Your task to perform on an android device: toggle javascript in the chrome app Image 0: 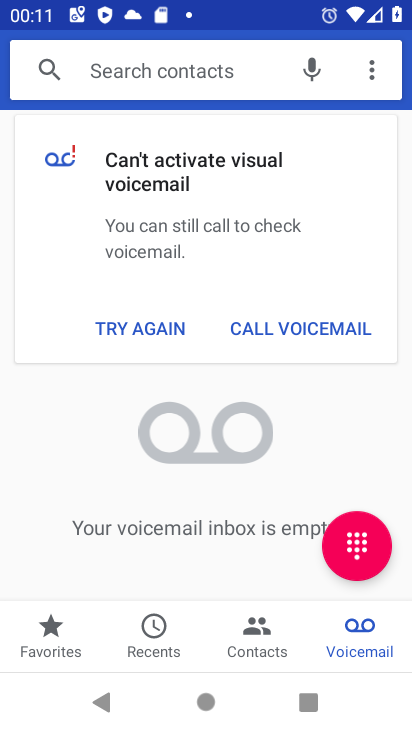
Step 0: press home button
Your task to perform on an android device: toggle javascript in the chrome app Image 1: 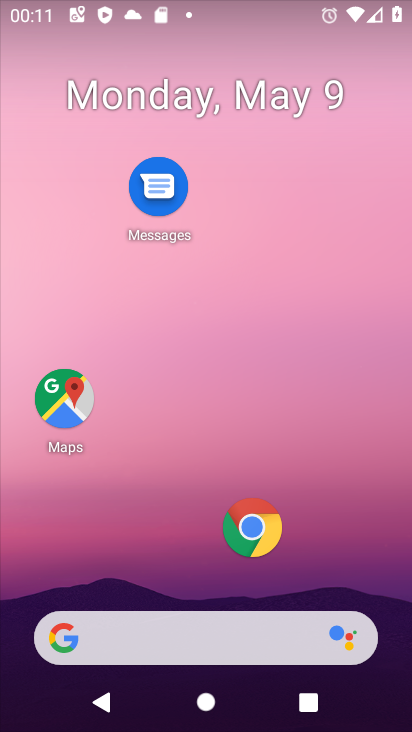
Step 1: click (250, 526)
Your task to perform on an android device: toggle javascript in the chrome app Image 2: 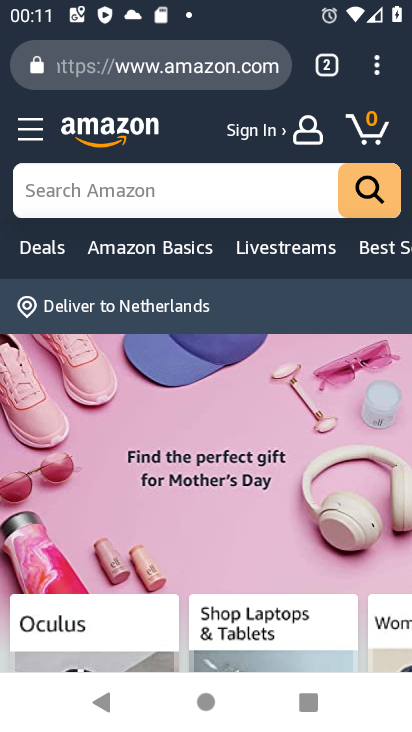
Step 2: click (369, 66)
Your task to perform on an android device: toggle javascript in the chrome app Image 3: 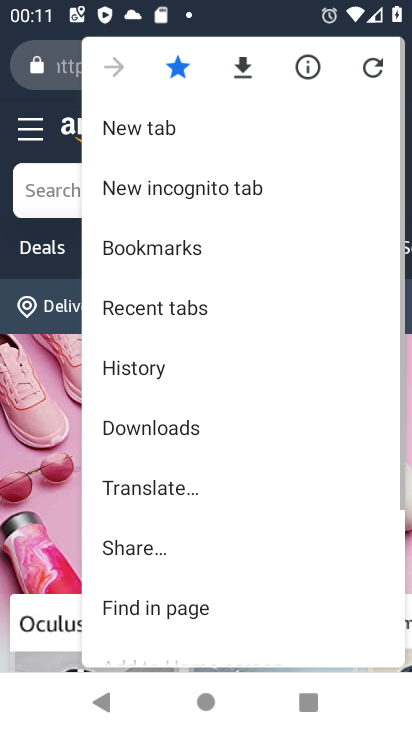
Step 3: drag from (254, 497) to (292, 5)
Your task to perform on an android device: toggle javascript in the chrome app Image 4: 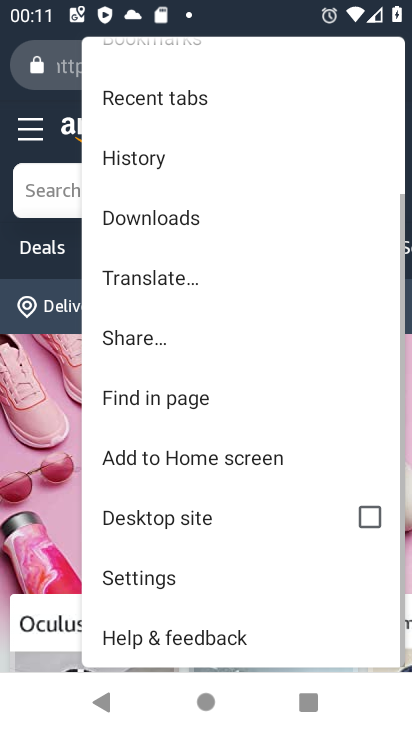
Step 4: click (171, 577)
Your task to perform on an android device: toggle javascript in the chrome app Image 5: 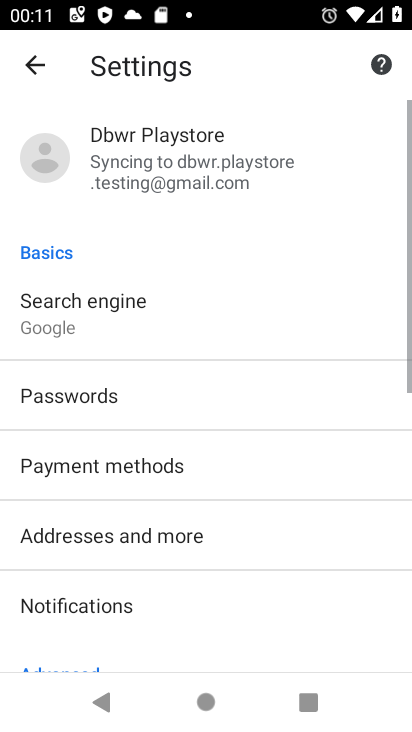
Step 5: drag from (251, 546) to (253, 87)
Your task to perform on an android device: toggle javascript in the chrome app Image 6: 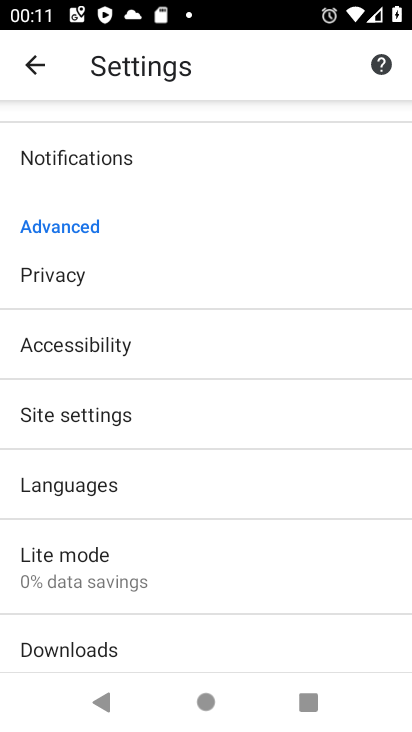
Step 6: drag from (166, 552) to (166, 359)
Your task to perform on an android device: toggle javascript in the chrome app Image 7: 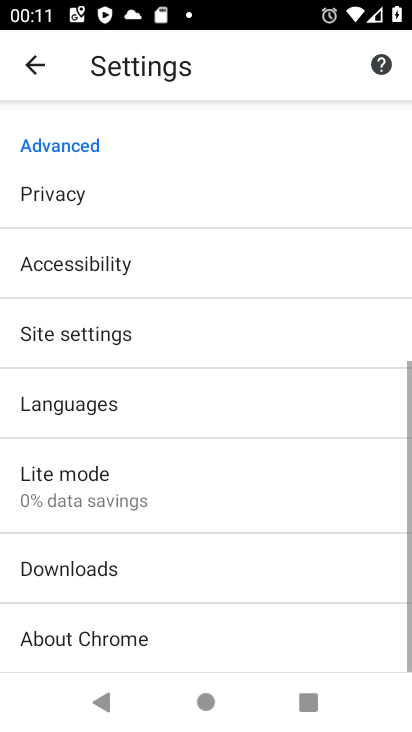
Step 7: click (12, 357)
Your task to perform on an android device: toggle javascript in the chrome app Image 8: 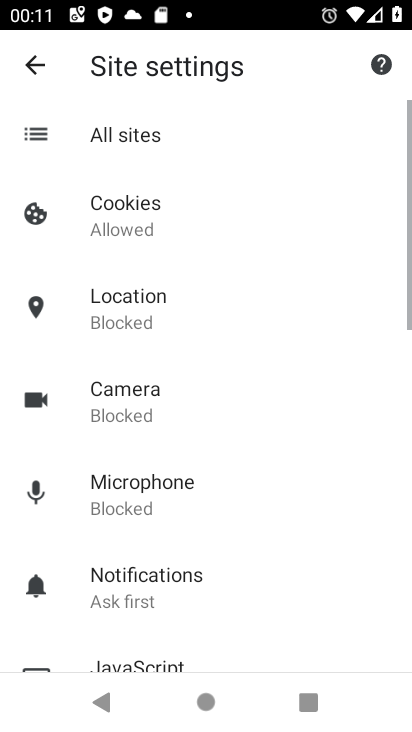
Step 8: drag from (230, 597) to (217, 263)
Your task to perform on an android device: toggle javascript in the chrome app Image 9: 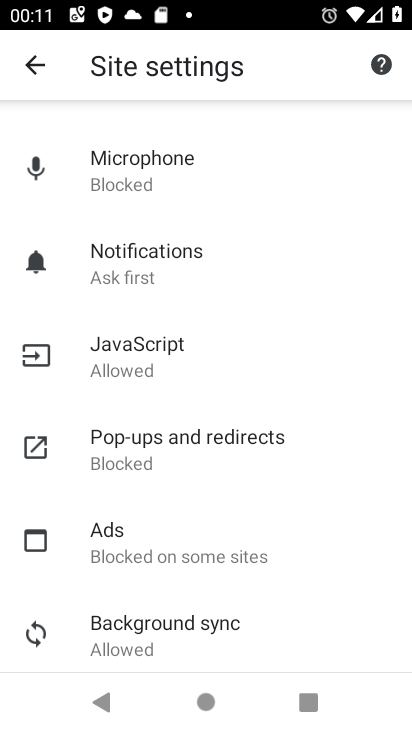
Step 9: click (113, 369)
Your task to perform on an android device: toggle javascript in the chrome app Image 10: 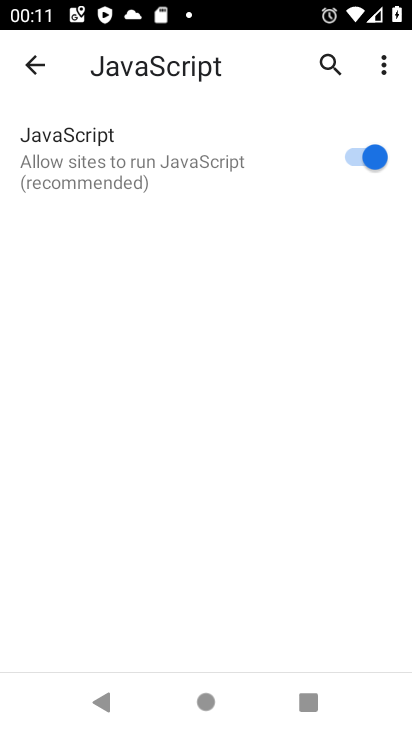
Step 10: click (364, 174)
Your task to perform on an android device: toggle javascript in the chrome app Image 11: 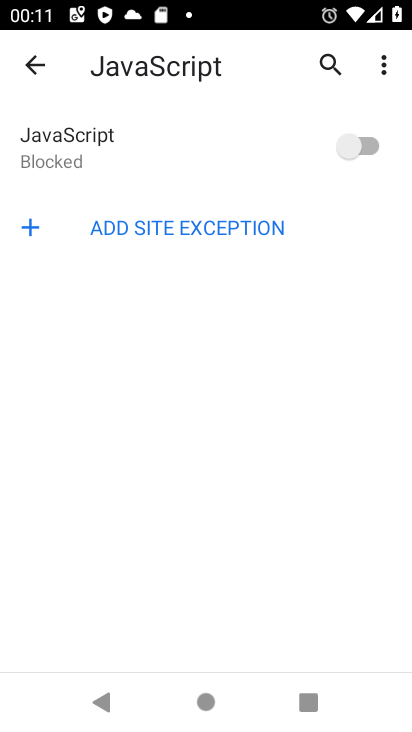
Step 11: task complete